Your task to perform on an android device: find snoozed emails in the gmail app Image 0: 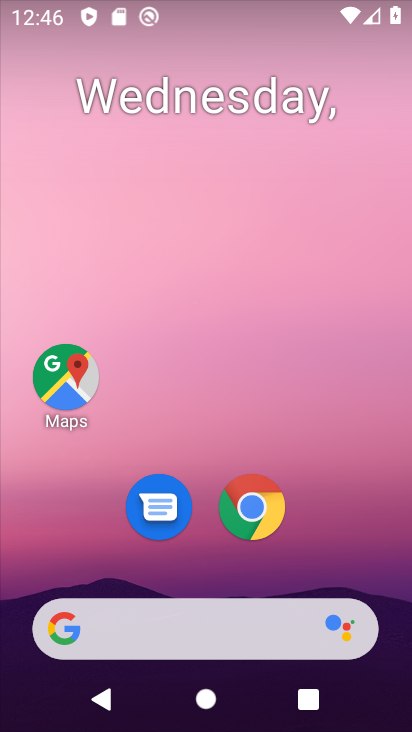
Step 0: drag from (147, 632) to (238, 134)
Your task to perform on an android device: find snoozed emails in the gmail app Image 1: 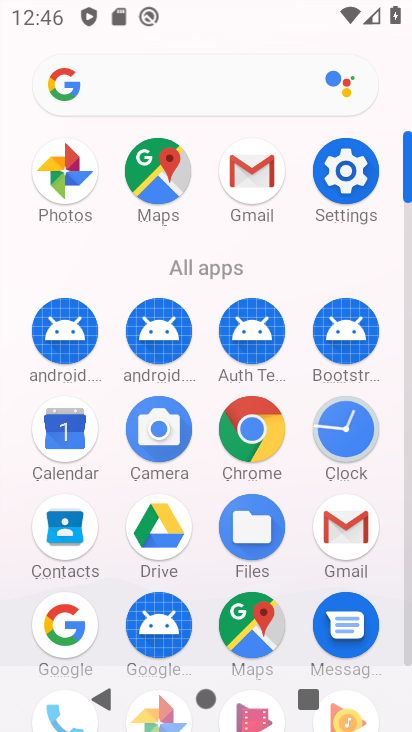
Step 1: click (259, 184)
Your task to perform on an android device: find snoozed emails in the gmail app Image 2: 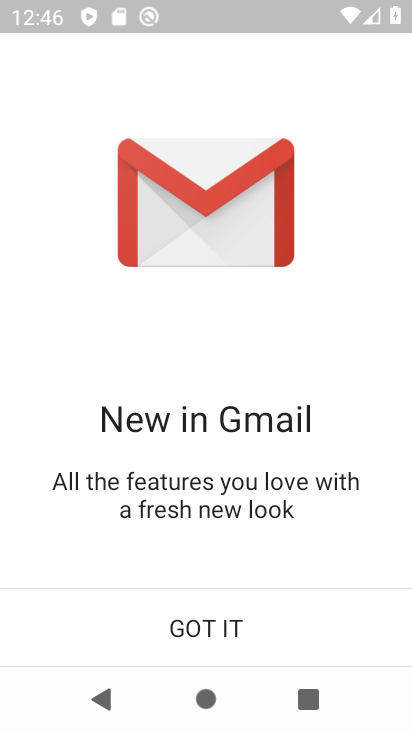
Step 2: click (186, 622)
Your task to perform on an android device: find snoozed emails in the gmail app Image 3: 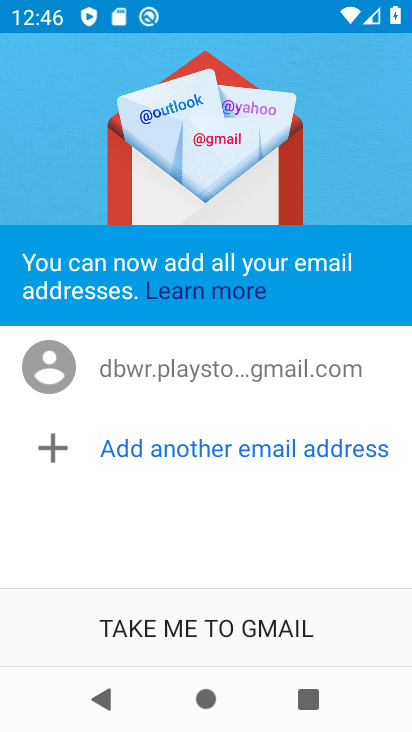
Step 3: click (186, 620)
Your task to perform on an android device: find snoozed emails in the gmail app Image 4: 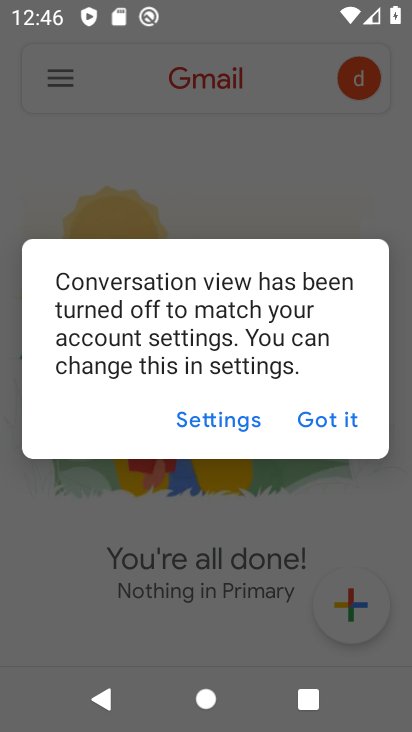
Step 4: click (336, 426)
Your task to perform on an android device: find snoozed emails in the gmail app Image 5: 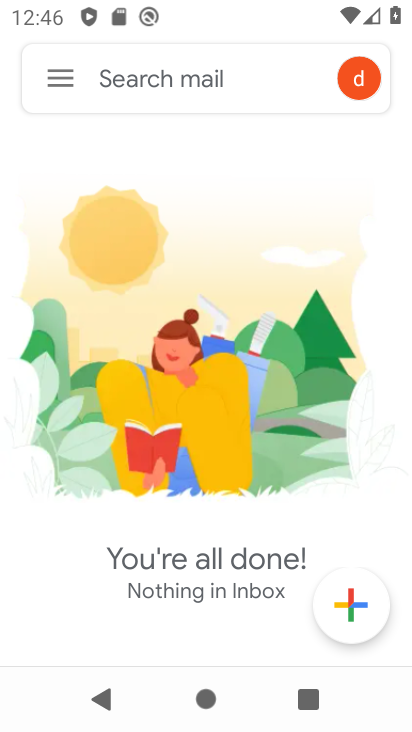
Step 5: click (53, 77)
Your task to perform on an android device: find snoozed emails in the gmail app Image 6: 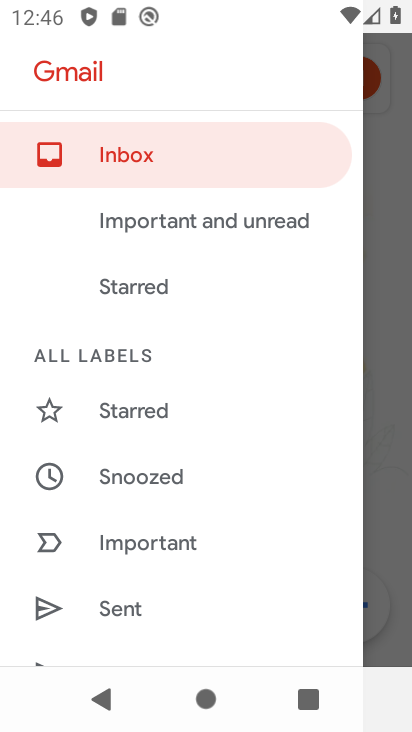
Step 6: click (152, 482)
Your task to perform on an android device: find snoozed emails in the gmail app Image 7: 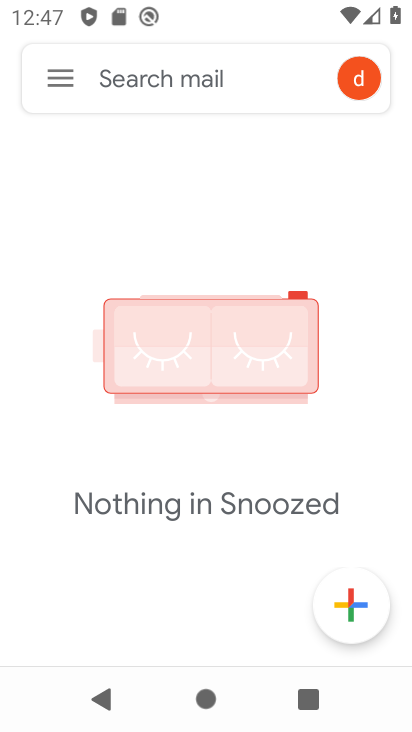
Step 7: task complete